Your task to perform on an android device: open app "Pinterest" (install if not already installed) Image 0: 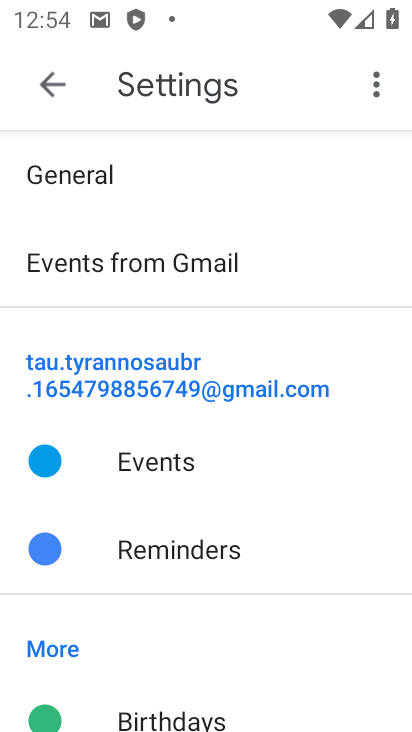
Step 0: press home button
Your task to perform on an android device: open app "Pinterest" (install if not already installed) Image 1: 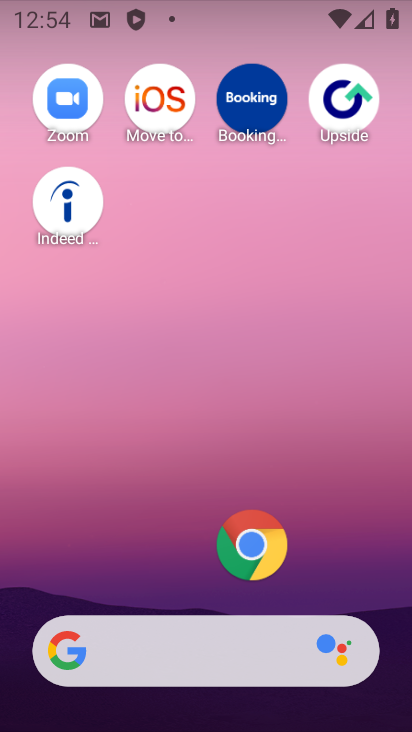
Step 1: drag from (175, 565) to (263, 74)
Your task to perform on an android device: open app "Pinterest" (install if not already installed) Image 2: 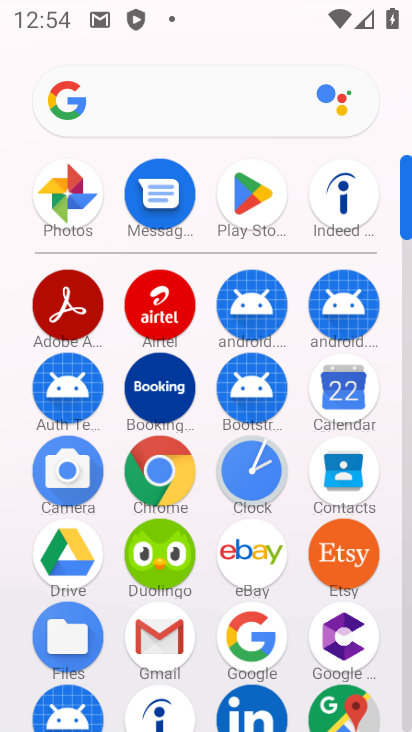
Step 2: click (249, 193)
Your task to perform on an android device: open app "Pinterest" (install if not already installed) Image 3: 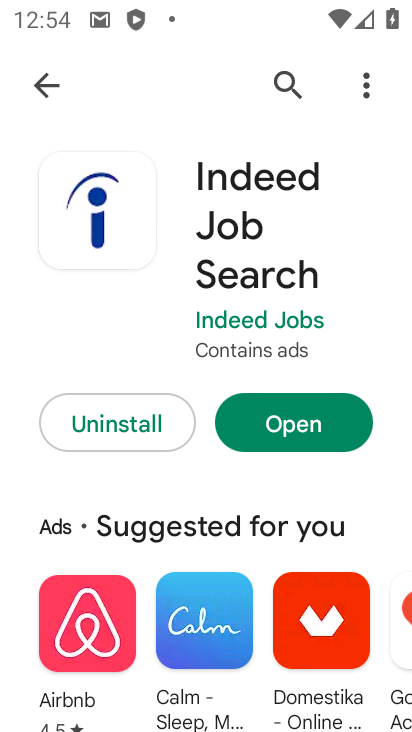
Step 3: click (280, 65)
Your task to perform on an android device: open app "Pinterest" (install if not already installed) Image 4: 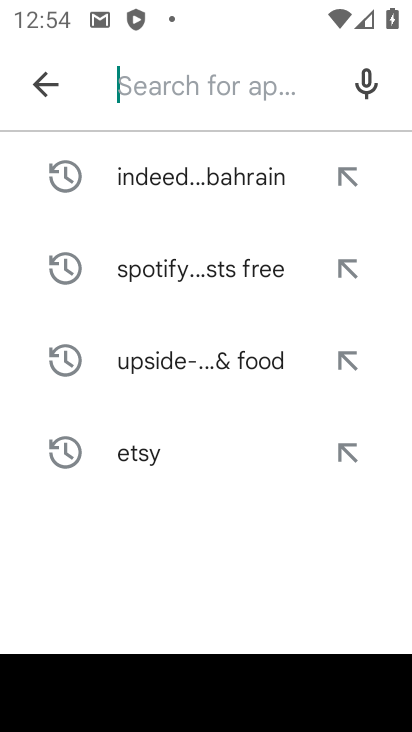
Step 4: click (169, 93)
Your task to perform on an android device: open app "Pinterest" (install if not already installed) Image 5: 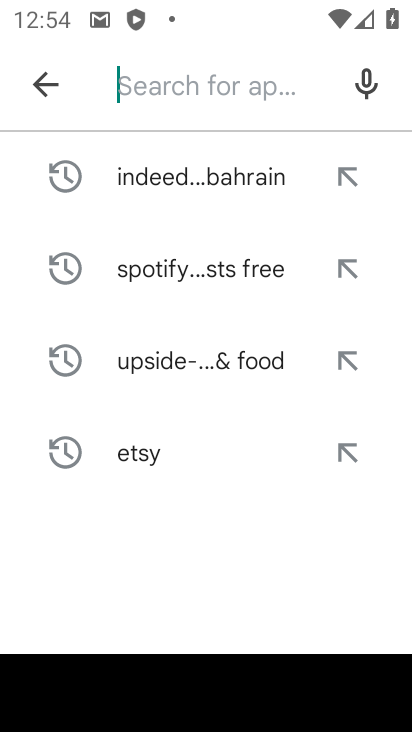
Step 5: type "Pinterest"
Your task to perform on an android device: open app "Pinterest" (install if not already installed) Image 6: 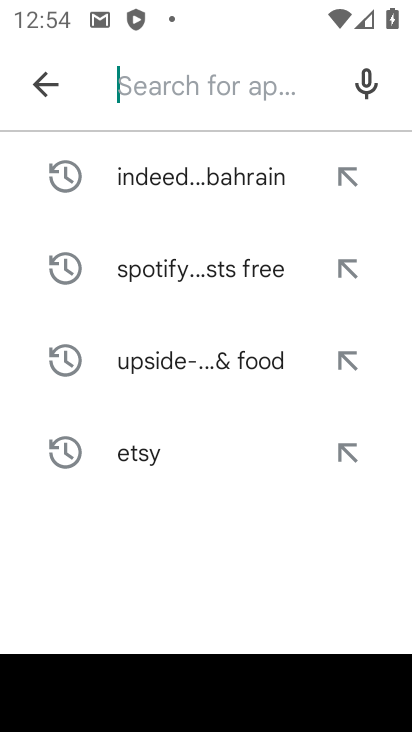
Step 6: click (144, 579)
Your task to perform on an android device: open app "Pinterest" (install if not already installed) Image 7: 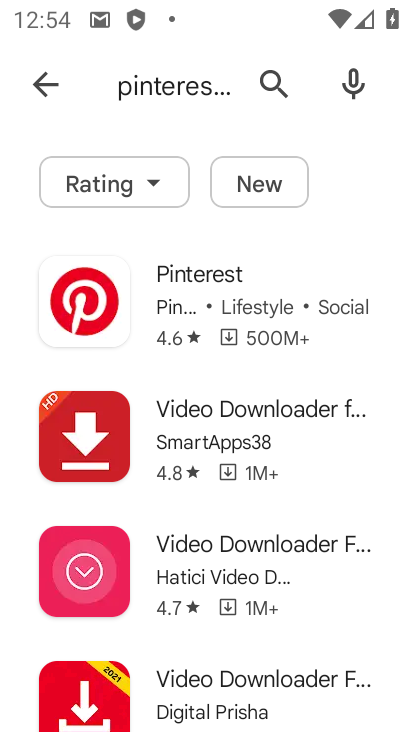
Step 7: click (205, 291)
Your task to perform on an android device: open app "Pinterest" (install if not already installed) Image 8: 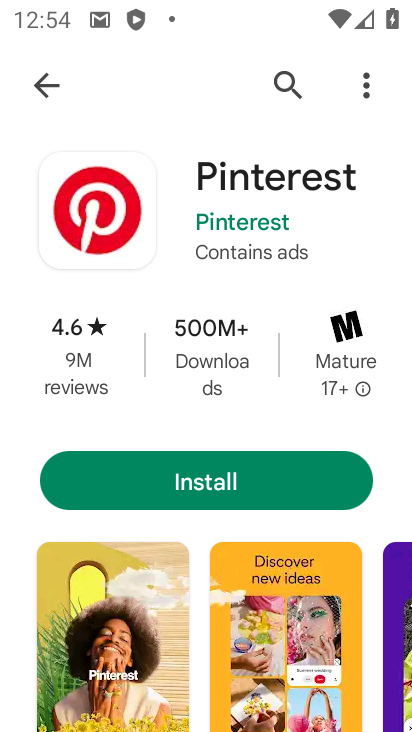
Step 8: click (212, 500)
Your task to perform on an android device: open app "Pinterest" (install if not already installed) Image 9: 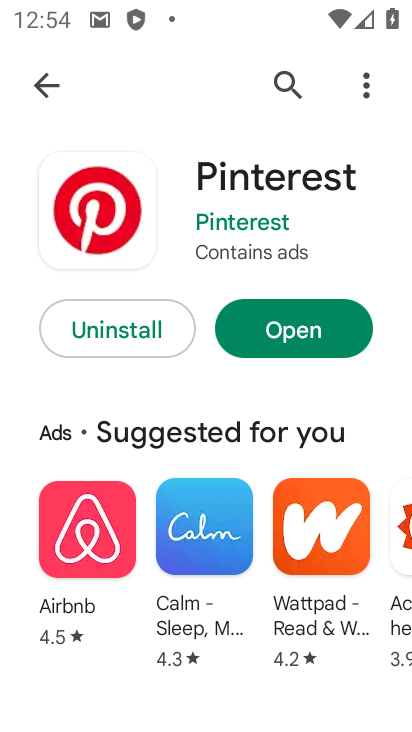
Step 9: click (315, 313)
Your task to perform on an android device: open app "Pinterest" (install if not already installed) Image 10: 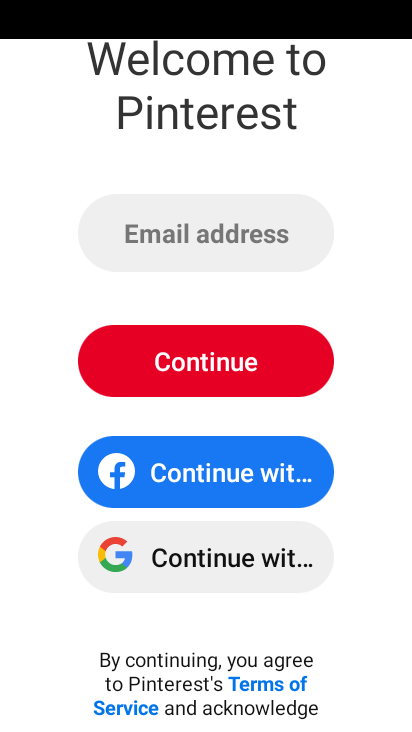
Step 10: task complete